Your task to perform on an android device: Check the news Image 0: 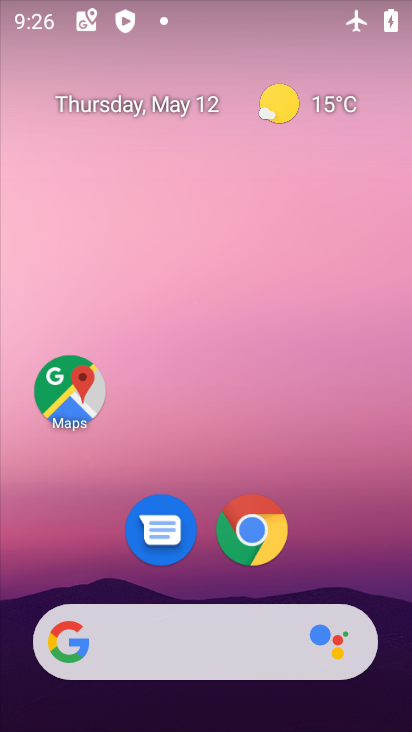
Step 0: click (219, 658)
Your task to perform on an android device: Check the news Image 1: 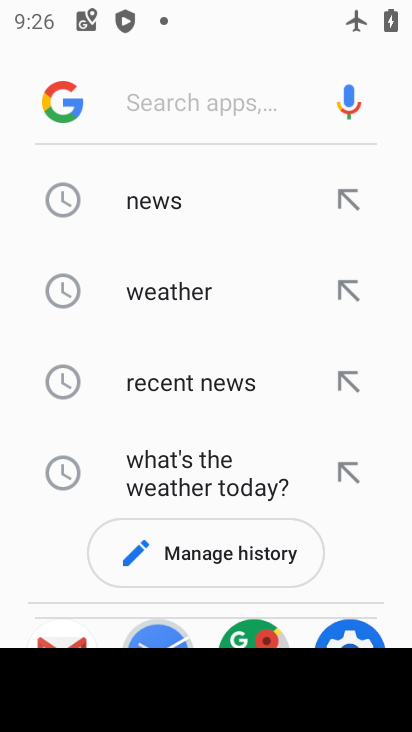
Step 1: click (177, 179)
Your task to perform on an android device: Check the news Image 2: 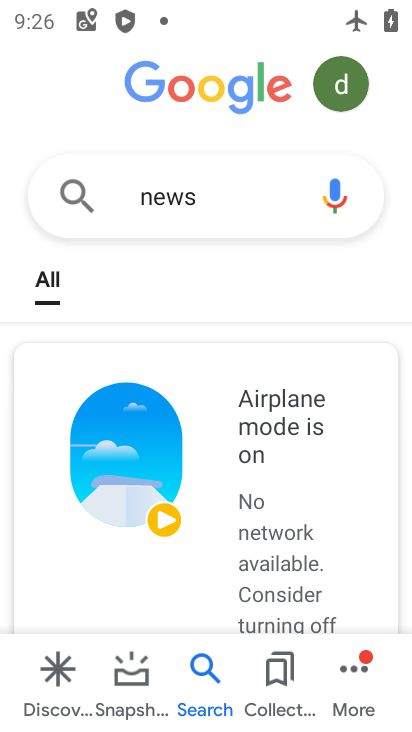
Step 2: task complete